Your task to perform on an android device: turn off improve location accuracy Image 0: 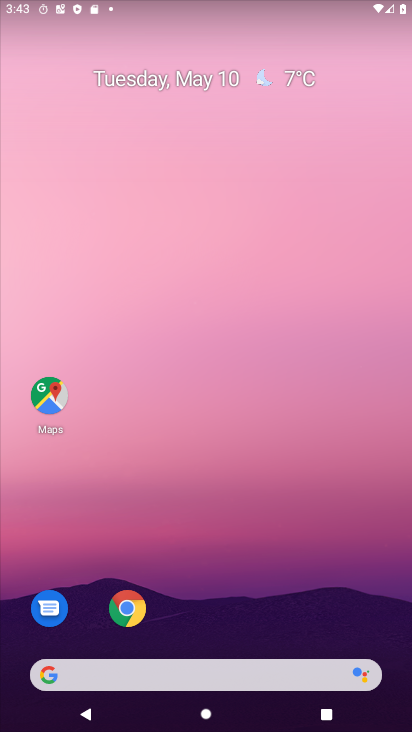
Step 0: drag from (356, 638) to (326, 0)
Your task to perform on an android device: turn off improve location accuracy Image 1: 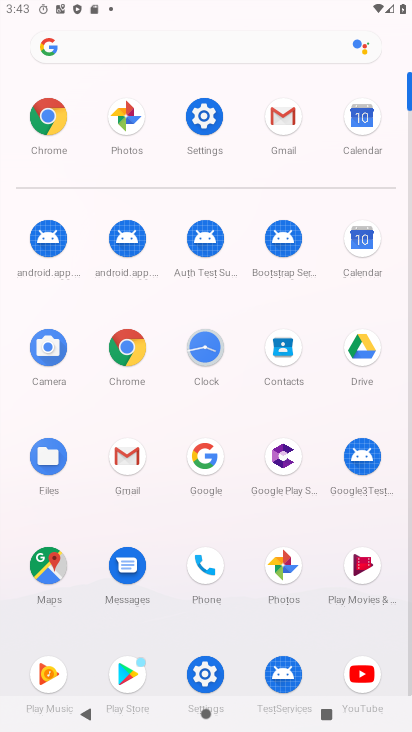
Step 1: click (206, 118)
Your task to perform on an android device: turn off improve location accuracy Image 2: 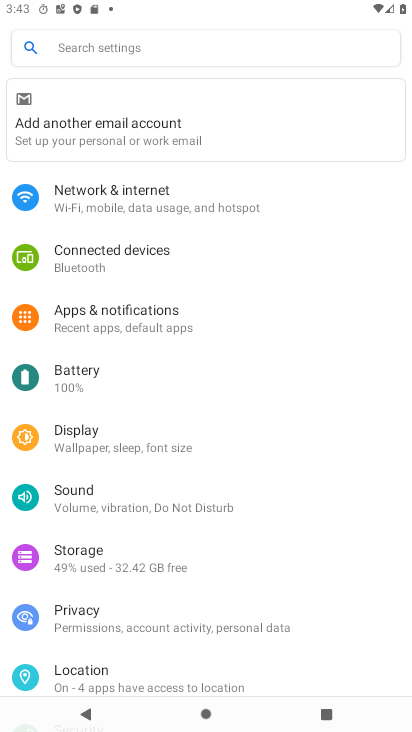
Step 2: click (84, 677)
Your task to perform on an android device: turn off improve location accuracy Image 3: 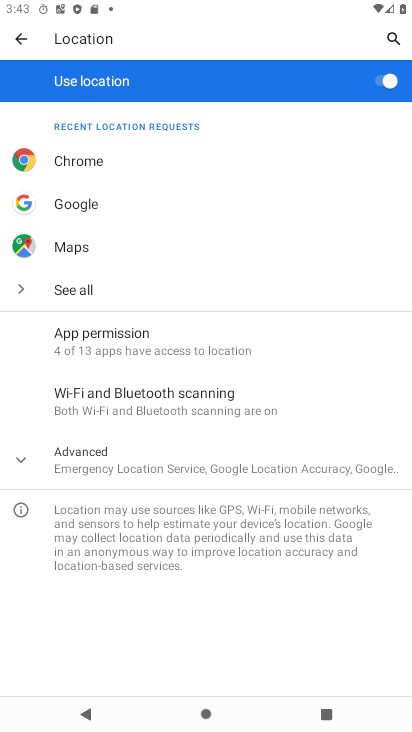
Step 3: click (29, 457)
Your task to perform on an android device: turn off improve location accuracy Image 4: 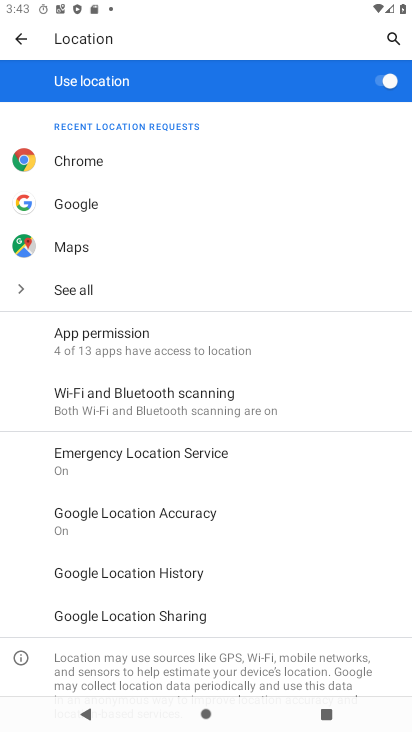
Step 4: click (119, 511)
Your task to perform on an android device: turn off improve location accuracy Image 5: 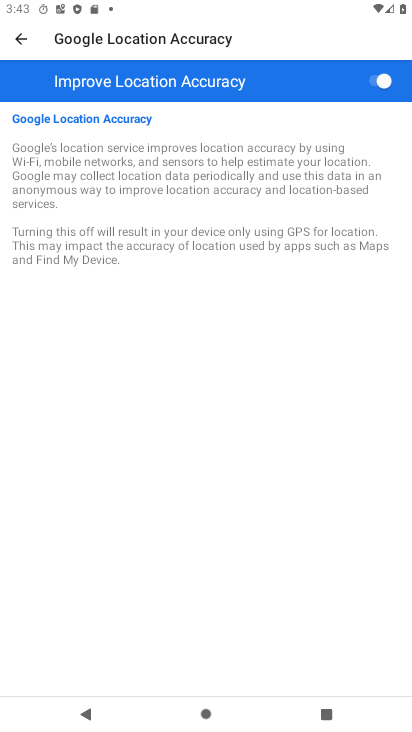
Step 5: click (380, 87)
Your task to perform on an android device: turn off improve location accuracy Image 6: 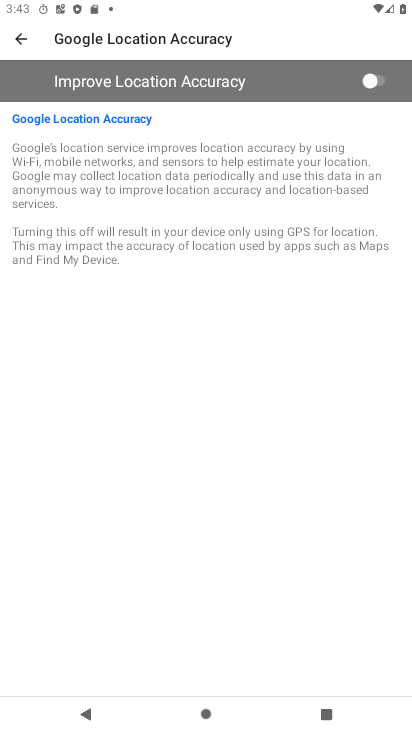
Step 6: task complete